Your task to perform on an android device: read, delete, or share a saved page in the chrome app Image 0: 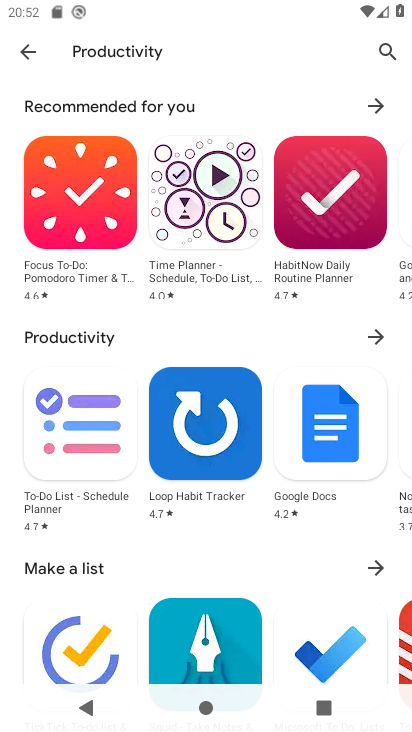
Step 0: press home button
Your task to perform on an android device: read, delete, or share a saved page in the chrome app Image 1: 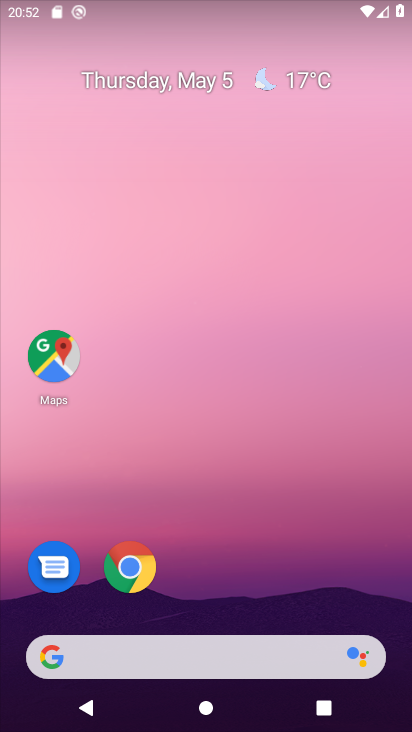
Step 1: drag from (293, 534) to (262, 38)
Your task to perform on an android device: read, delete, or share a saved page in the chrome app Image 2: 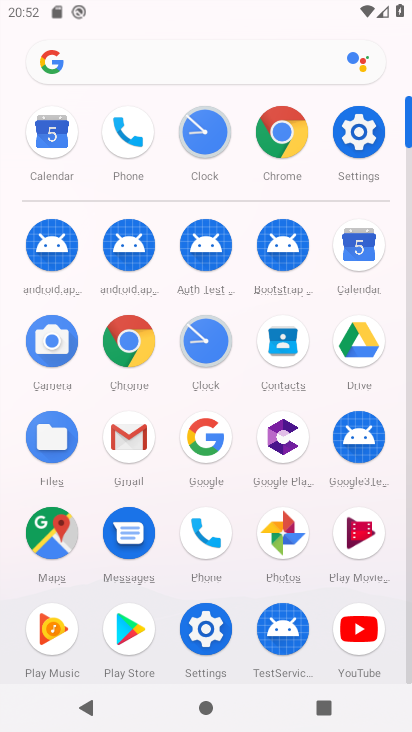
Step 2: click (283, 129)
Your task to perform on an android device: read, delete, or share a saved page in the chrome app Image 3: 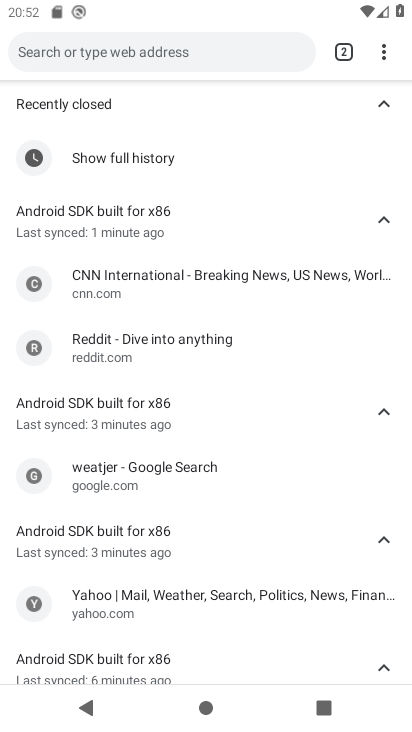
Step 3: drag from (380, 44) to (202, 326)
Your task to perform on an android device: read, delete, or share a saved page in the chrome app Image 4: 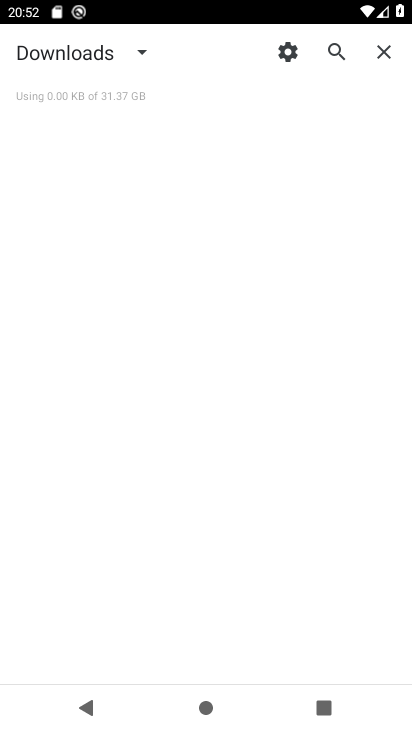
Step 4: click (382, 42)
Your task to perform on an android device: read, delete, or share a saved page in the chrome app Image 5: 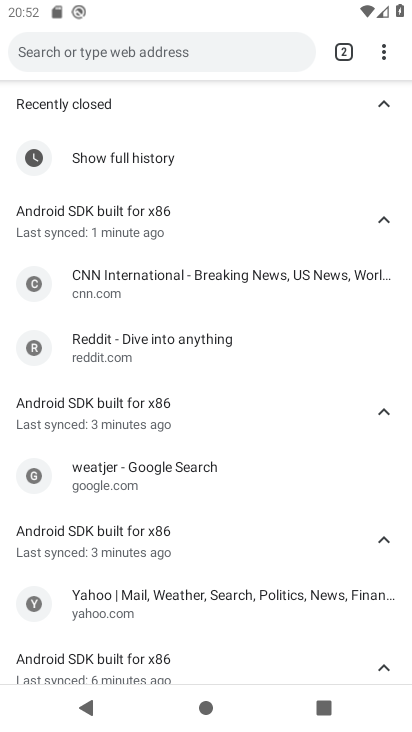
Step 5: drag from (383, 53) to (264, 291)
Your task to perform on an android device: read, delete, or share a saved page in the chrome app Image 6: 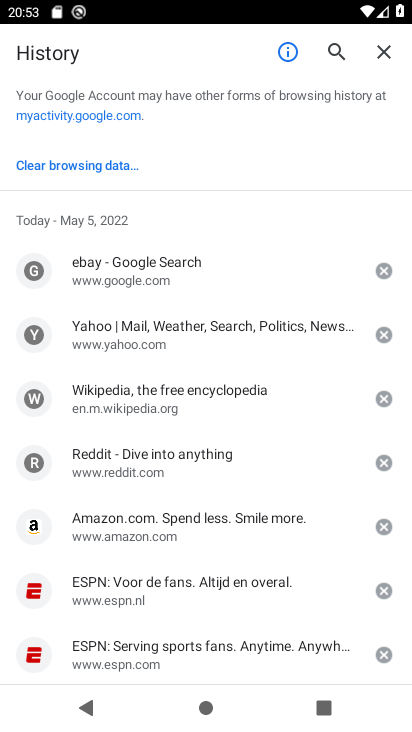
Step 6: click (233, 402)
Your task to perform on an android device: read, delete, or share a saved page in the chrome app Image 7: 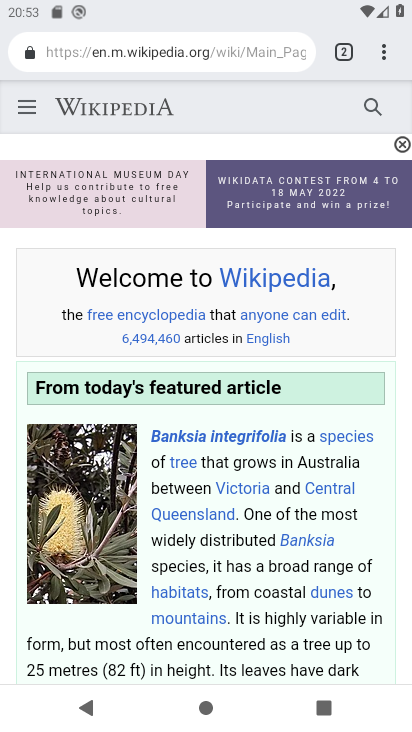
Step 7: task complete